Your task to perform on an android device: Clear the cart on walmart.com. Search for macbook air on walmart.com, select the first entry, and add it to the cart. Image 0: 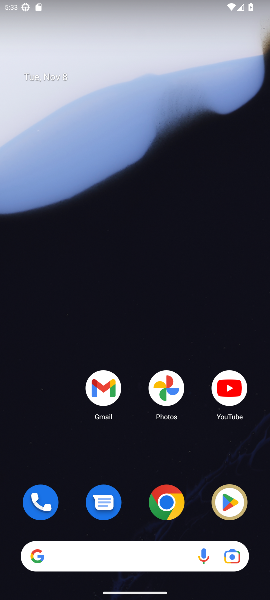
Step 0: drag from (102, 556) to (134, 166)
Your task to perform on an android device: Clear the cart on walmart.com. Search for macbook air on walmart.com, select the first entry, and add it to the cart. Image 1: 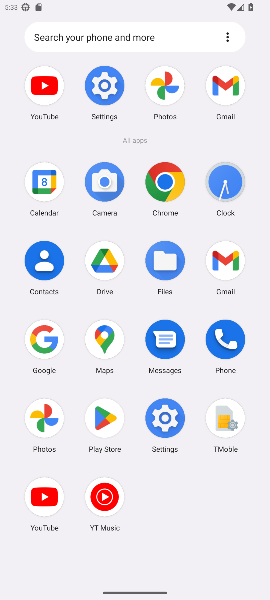
Step 1: click (41, 347)
Your task to perform on an android device: Clear the cart on walmart.com. Search for macbook air on walmart.com, select the first entry, and add it to the cart. Image 2: 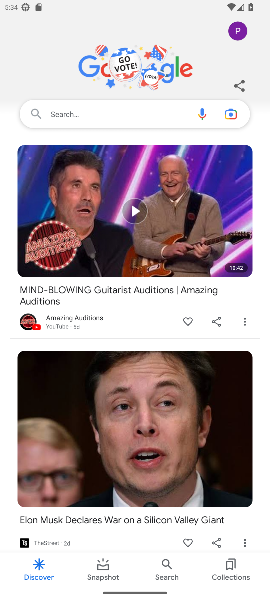
Step 2: click (142, 111)
Your task to perform on an android device: Clear the cart on walmart.com. Search for macbook air on walmart.com, select the first entry, and add it to the cart. Image 3: 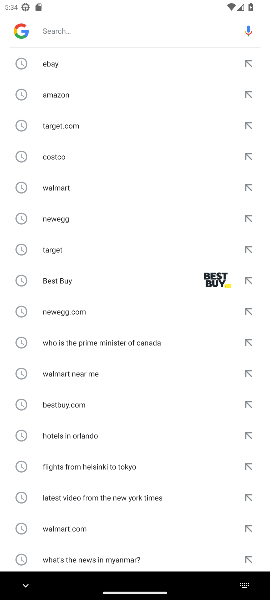
Step 3: click (99, 25)
Your task to perform on an android device: Clear the cart on walmart.com. Search for macbook air on walmart.com, select the first entry, and add it to the cart. Image 4: 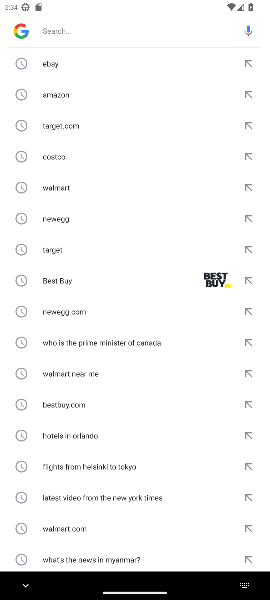
Step 4: type "walmart "
Your task to perform on an android device: Clear the cart on walmart.com. Search for macbook air on walmart.com, select the first entry, and add it to the cart. Image 5: 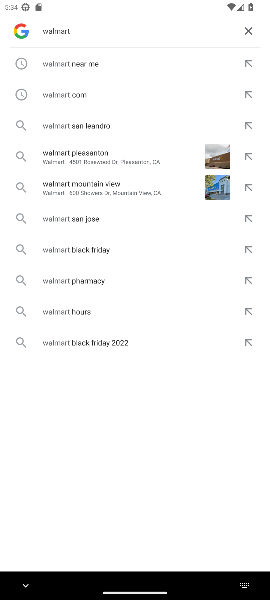
Step 5: click (85, 66)
Your task to perform on an android device: Clear the cart on walmart.com. Search for macbook air on walmart.com, select the first entry, and add it to the cart. Image 6: 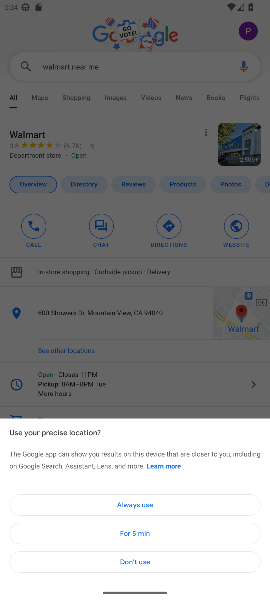
Step 6: click (154, 563)
Your task to perform on an android device: Clear the cart on walmart.com. Search for macbook air on walmart.com, select the first entry, and add it to the cart. Image 7: 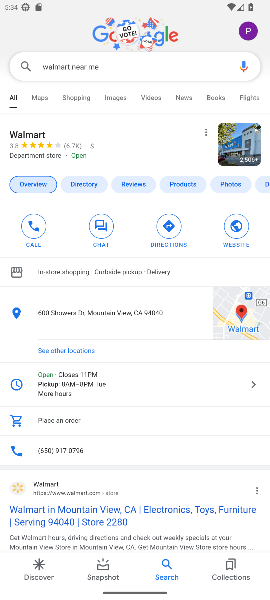
Step 7: click (20, 494)
Your task to perform on an android device: Clear the cart on walmart.com. Search for macbook air on walmart.com, select the first entry, and add it to the cart. Image 8: 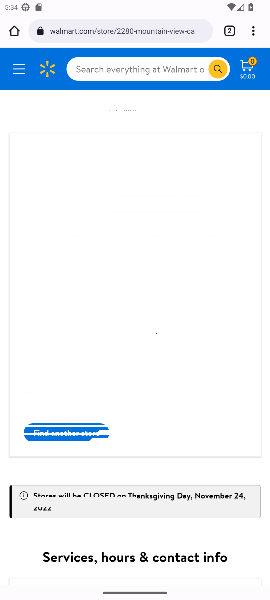
Step 8: click (134, 64)
Your task to perform on an android device: Clear the cart on walmart.com. Search for macbook air on walmart.com, select the first entry, and add it to the cart. Image 9: 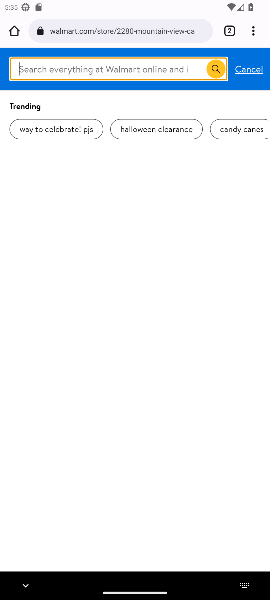
Step 9: click (82, 64)
Your task to perform on an android device: Clear the cart on walmart.com. Search for macbook air on walmart.com, select the first entry, and add it to the cart. Image 10: 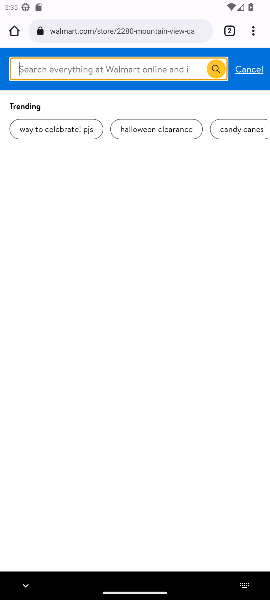
Step 10: click (82, 64)
Your task to perform on an android device: Clear the cart on walmart.com. Search for macbook air on walmart.com, select the first entry, and add it to the cart. Image 11: 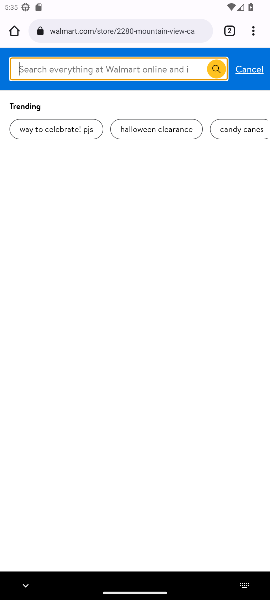
Step 11: click (82, 64)
Your task to perform on an android device: Clear the cart on walmart.com. Search for macbook air on walmart.com, select the first entry, and add it to the cart. Image 12: 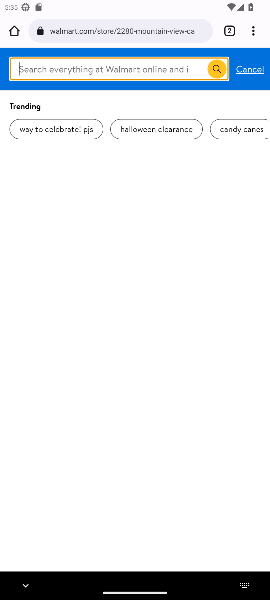
Step 12: type " macbook air "
Your task to perform on an android device: Clear the cart on walmart.com. Search for macbook air on walmart.com, select the first entry, and add it to the cart. Image 13: 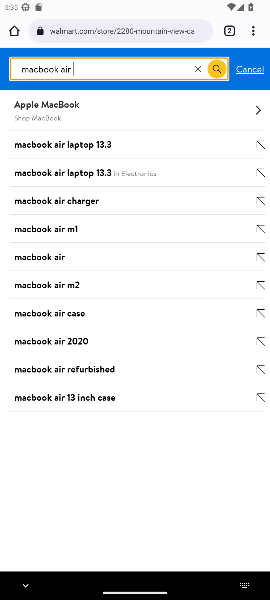
Step 13: click (63, 260)
Your task to perform on an android device: Clear the cart on walmart.com. Search for macbook air on walmart.com, select the first entry, and add it to the cart. Image 14: 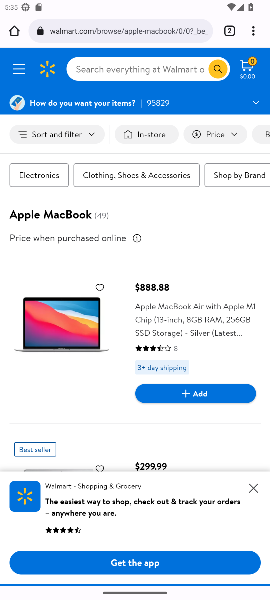
Step 14: click (195, 390)
Your task to perform on an android device: Clear the cart on walmart.com. Search for macbook air on walmart.com, select the first entry, and add it to the cart. Image 15: 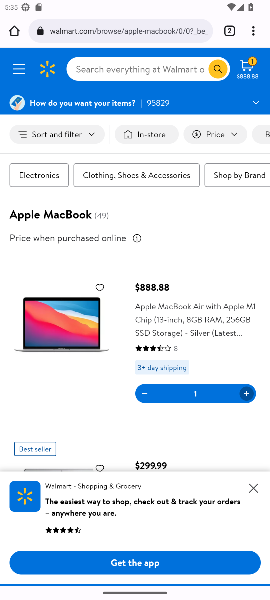
Step 15: task complete